Your task to perform on an android device: Open the camera Image 0: 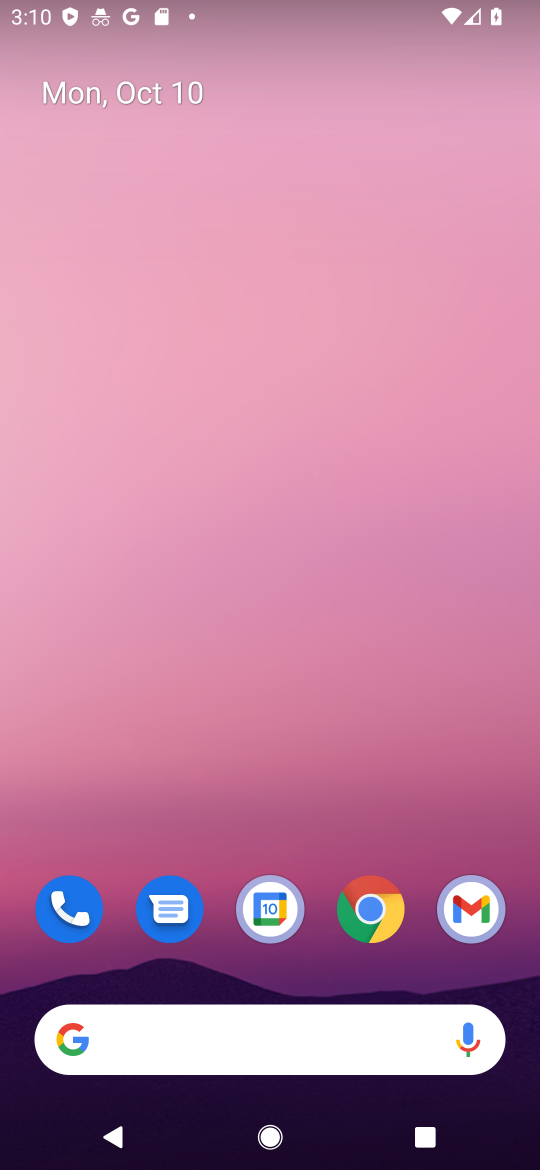
Step 0: drag from (320, 761) to (317, 183)
Your task to perform on an android device: Open the camera Image 1: 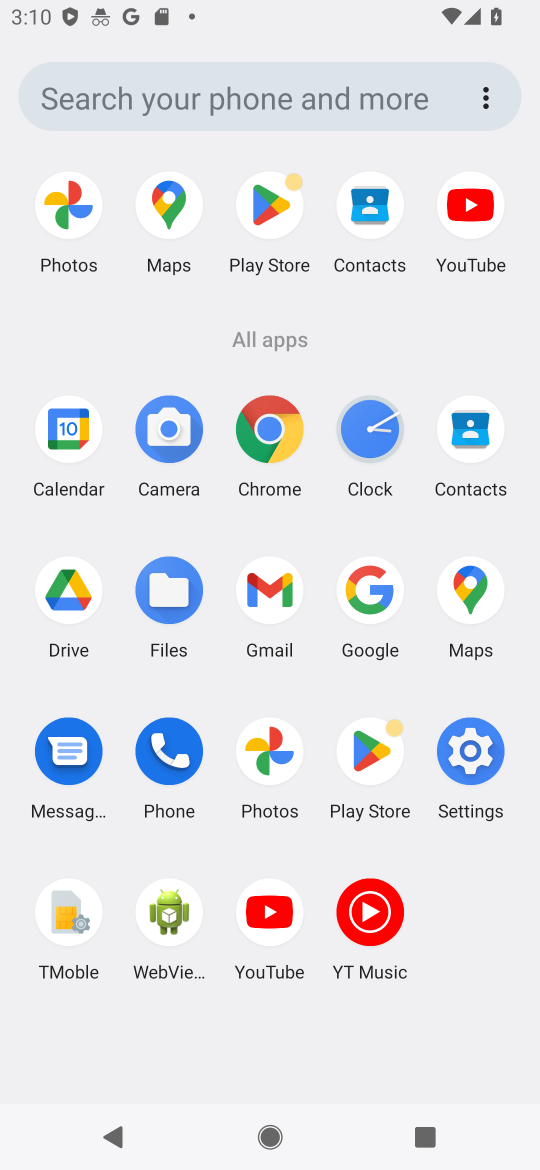
Step 1: click (166, 427)
Your task to perform on an android device: Open the camera Image 2: 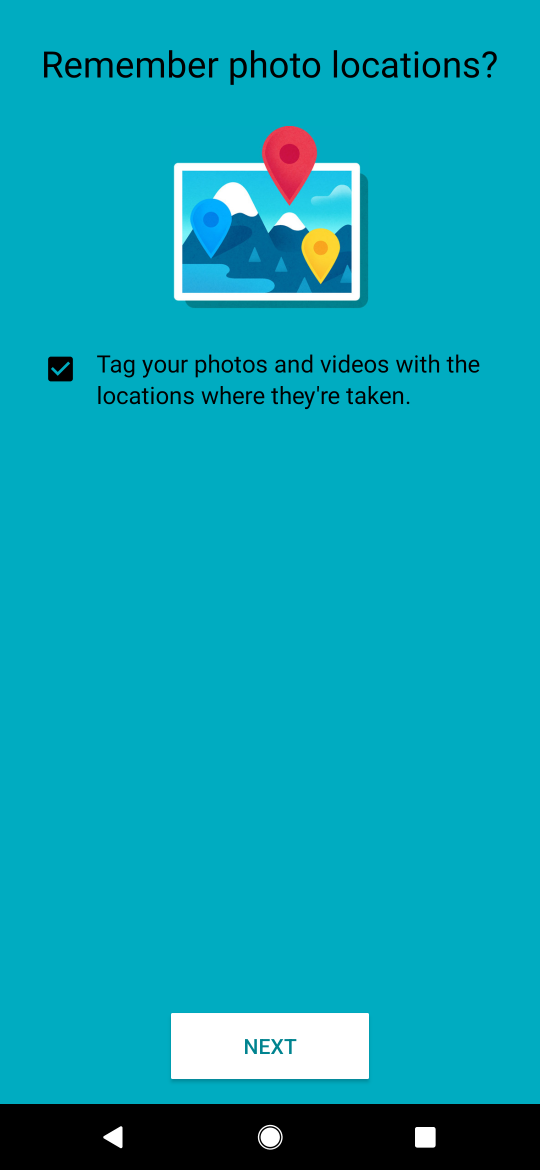
Step 2: click (270, 1040)
Your task to perform on an android device: Open the camera Image 3: 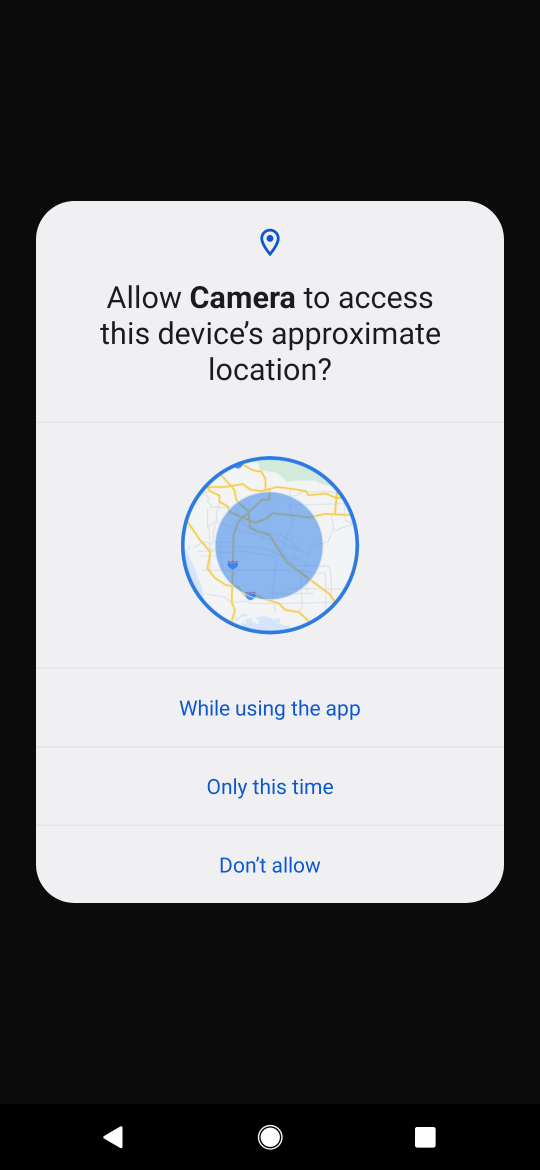
Step 3: click (241, 708)
Your task to perform on an android device: Open the camera Image 4: 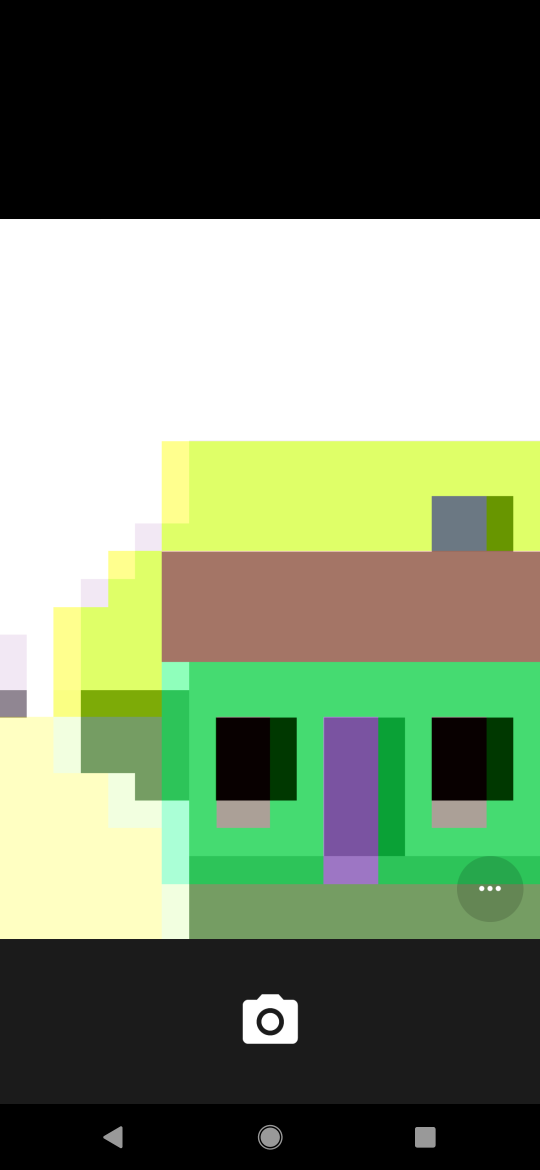
Step 4: task complete